Your task to perform on an android device: set the stopwatch Image 0: 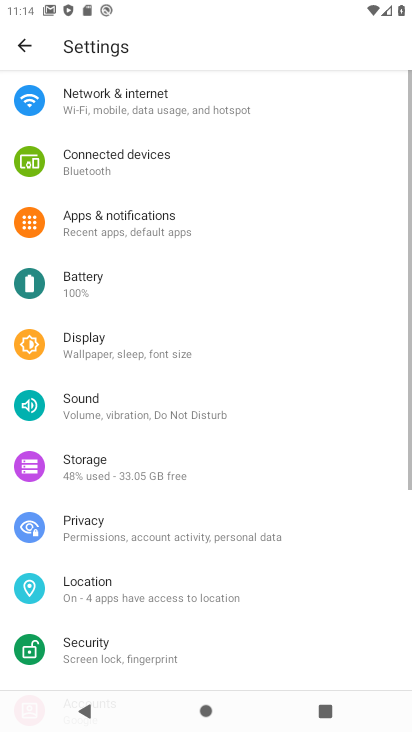
Step 0: press home button
Your task to perform on an android device: set the stopwatch Image 1: 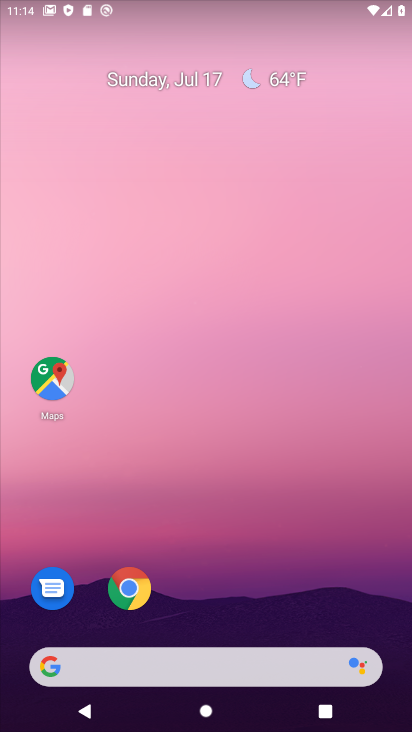
Step 1: drag from (231, 642) to (240, 171)
Your task to perform on an android device: set the stopwatch Image 2: 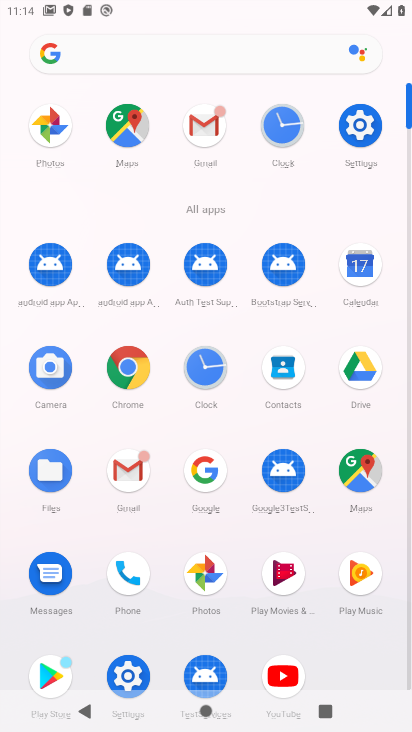
Step 2: click (191, 366)
Your task to perform on an android device: set the stopwatch Image 3: 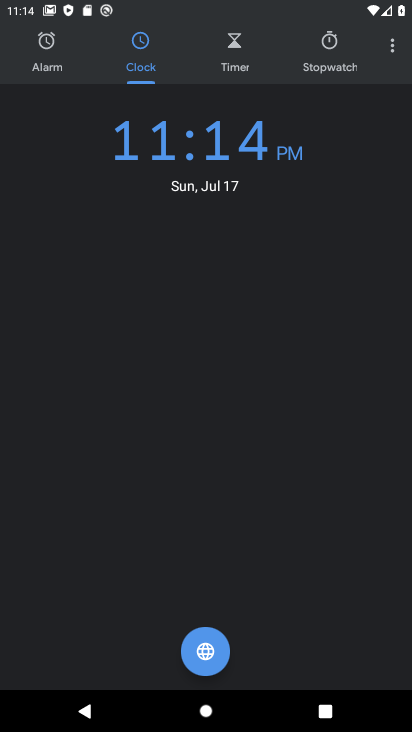
Step 3: click (334, 34)
Your task to perform on an android device: set the stopwatch Image 4: 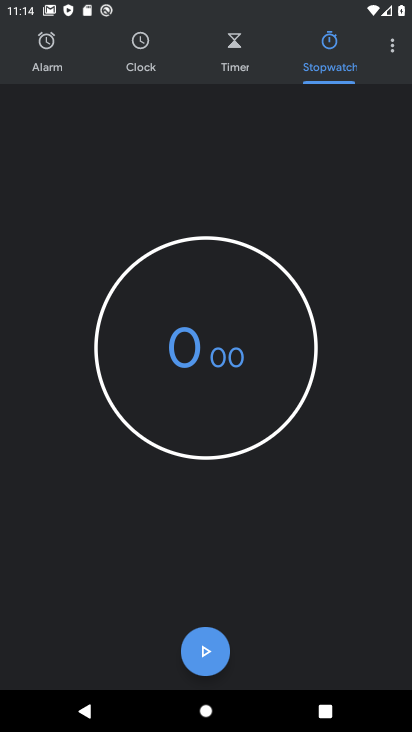
Step 4: click (228, 648)
Your task to perform on an android device: set the stopwatch Image 5: 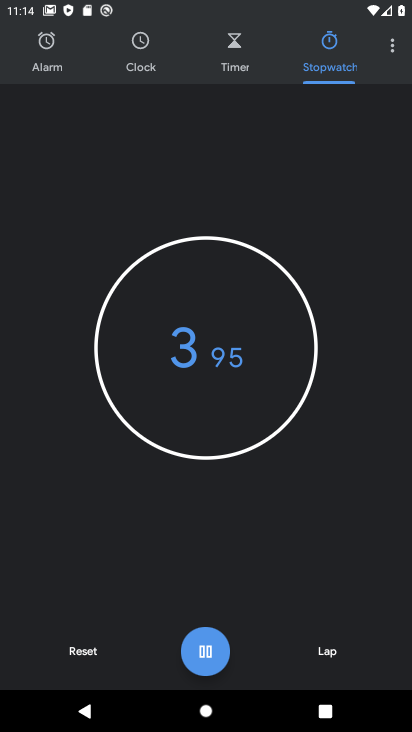
Step 5: task complete